Your task to perform on an android device: Search for Mexican restaurants on Maps Image 0: 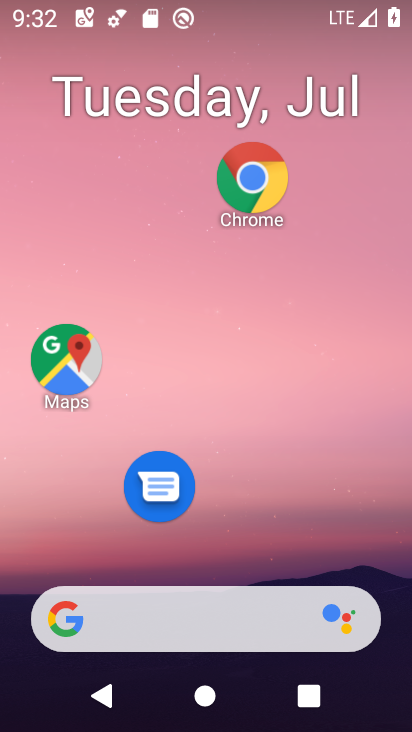
Step 0: drag from (213, 661) to (220, 150)
Your task to perform on an android device: Search for Mexican restaurants on Maps Image 1: 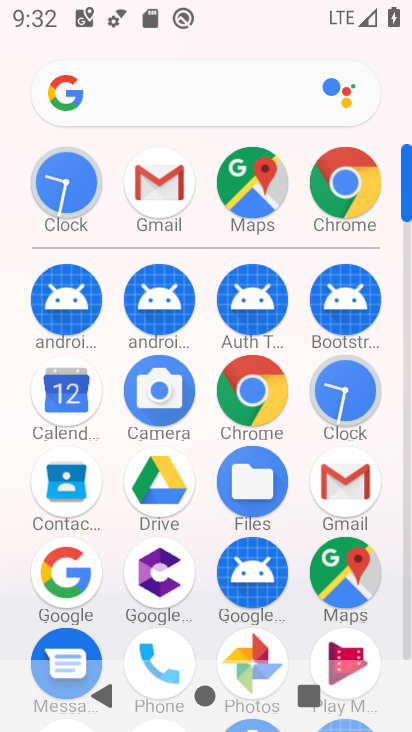
Step 1: click (266, 180)
Your task to perform on an android device: Search for Mexican restaurants on Maps Image 2: 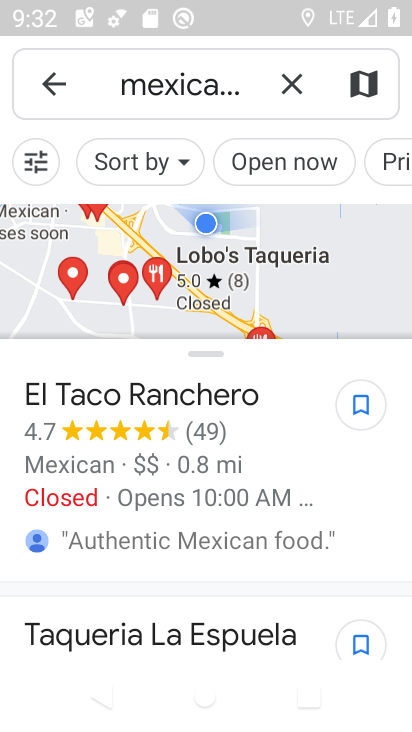
Step 2: task complete